Your task to perform on an android device: What's on my calendar tomorrow? Image 0: 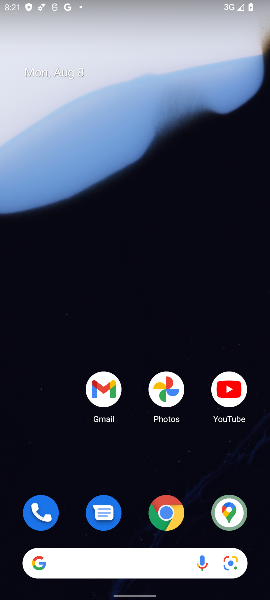
Step 0: drag from (101, 564) to (89, 19)
Your task to perform on an android device: What's on my calendar tomorrow? Image 1: 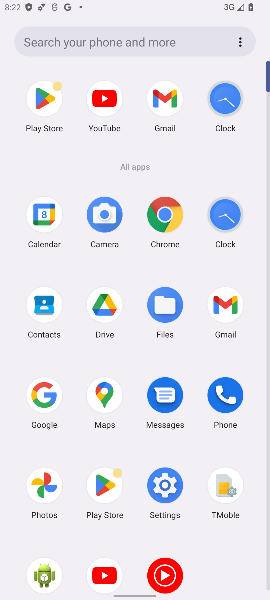
Step 1: click (25, 224)
Your task to perform on an android device: What's on my calendar tomorrow? Image 2: 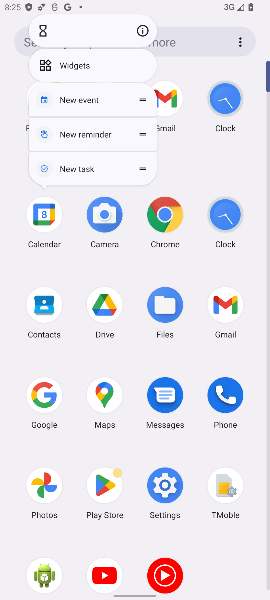
Step 2: click (39, 237)
Your task to perform on an android device: What's on my calendar tomorrow? Image 3: 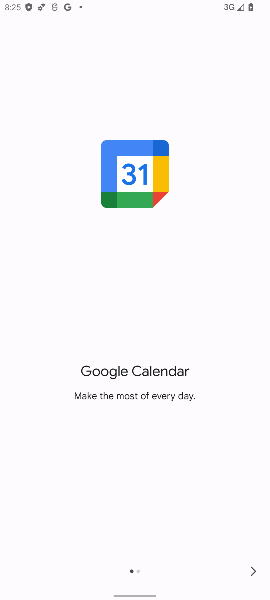
Step 3: click (245, 566)
Your task to perform on an android device: What's on my calendar tomorrow? Image 4: 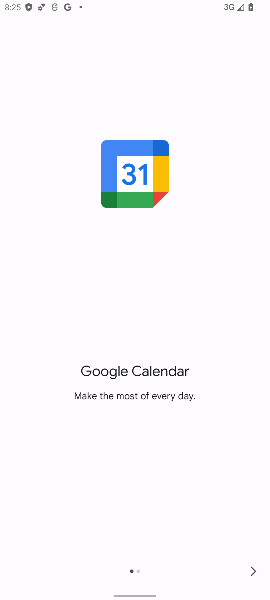
Step 4: click (245, 566)
Your task to perform on an android device: What's on my calendar tomorrow? Image 5: 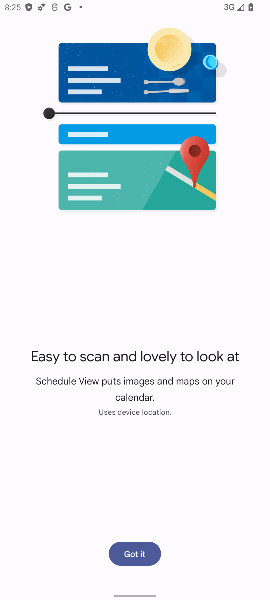
Step 5: click (116, 552)
Your task to perform on an android device: What's on my calendar tomorrow? Image 6: 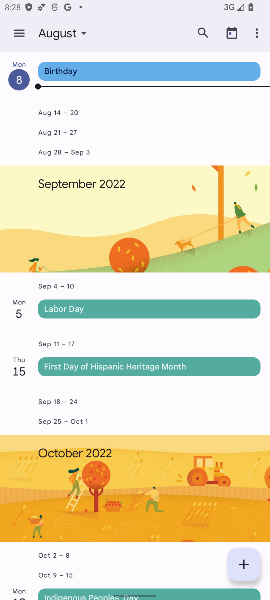
Step 6: click (56, 42)
Your task to perform on an android device: What's on my calendar tomorrow? Image 7: 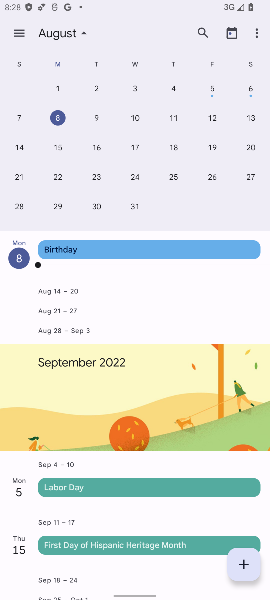
Step 7: click (92, 122)
Your task to perform on an android device: What's on my calendar tomorrow? Image 8: 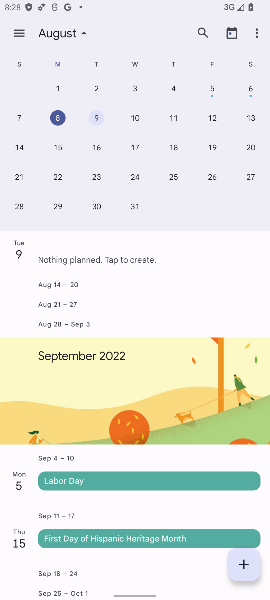
Step 8: task complete